Your task to perform on an android device: change alarm snooze length Image 0: 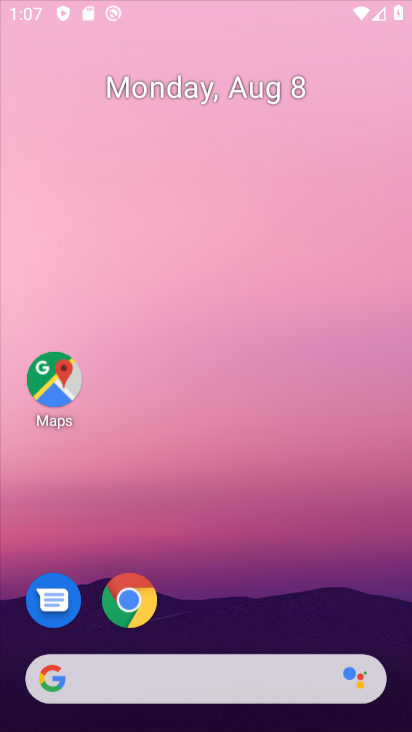
Step 0: press home button
Your task to perform on an android device: change alarm snooze length Image 1: 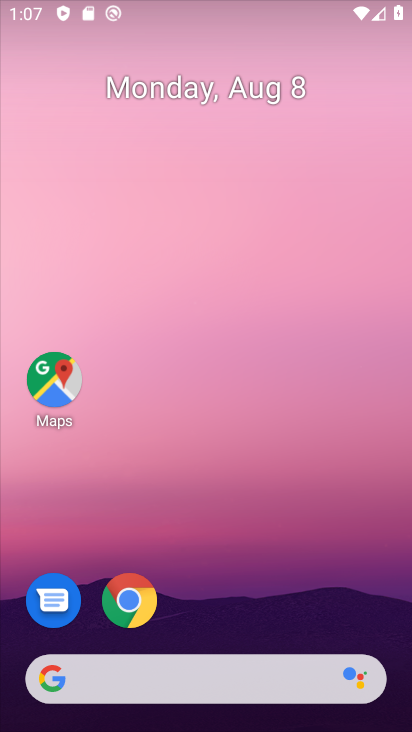
Step 1: drag from (267, 630) to (265, 256)
Your task to perform on an android device: change alarm snooze length Image 2: 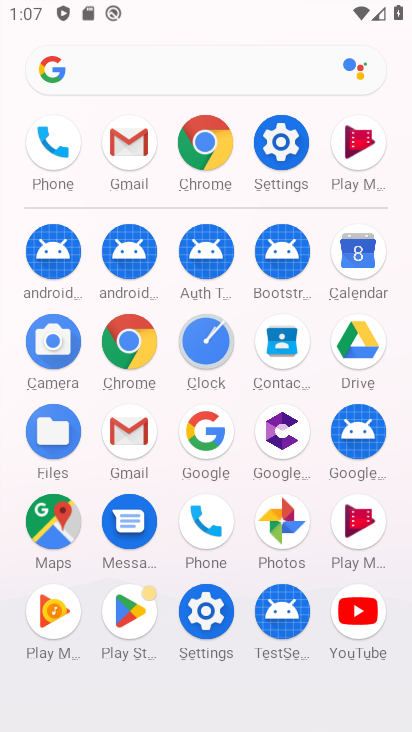
Step 2: click (224, 338)
Your task to perform on an android device: change alarm snooze length Image 3: 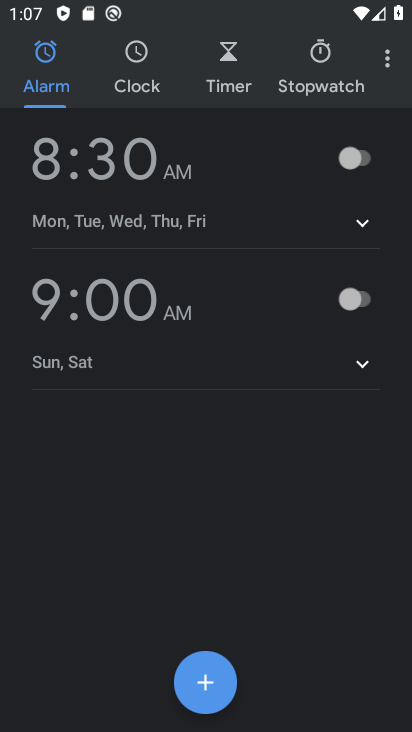
Step 3: click (392, 43)
Your task to perform on an android device: change alarm snooze length Image 4: 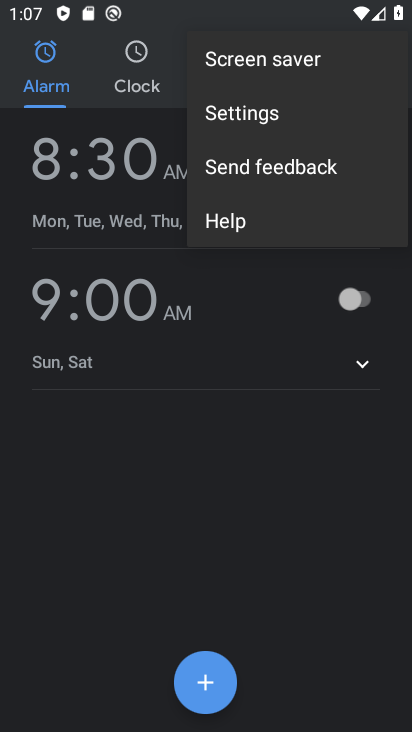
Step 4: click (253, 129)
Your task to perform on an android device: change alarm snooze length Image 5: 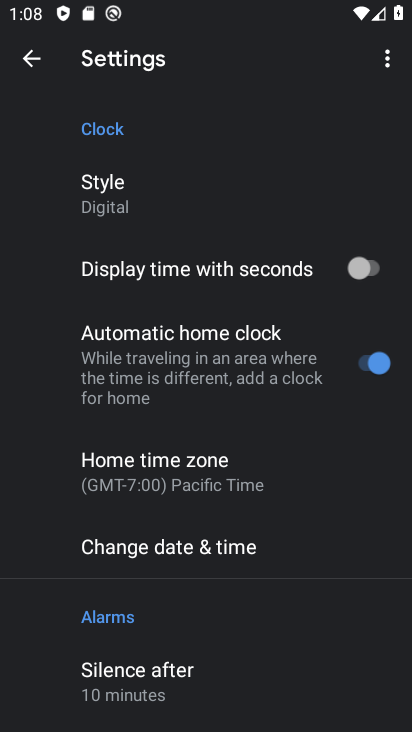
Step 5: drag from (166, 658) to (184, 471)
Your task to perform on an android device: change alarm snooze length Image 6: 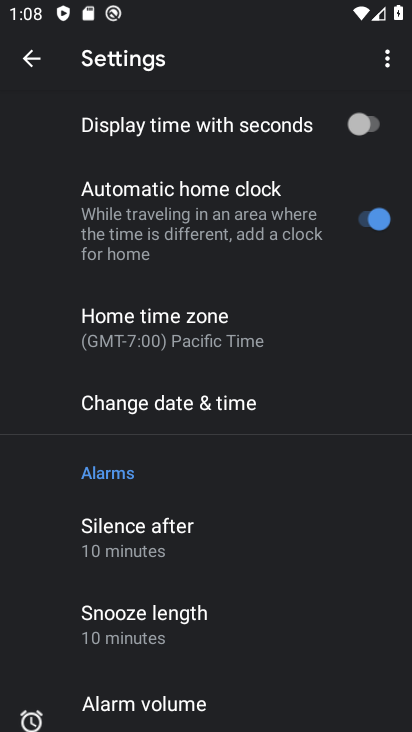
Step 6: click (142, 627)
Your task to perform on an android device: change alarm snooze length Image 7: 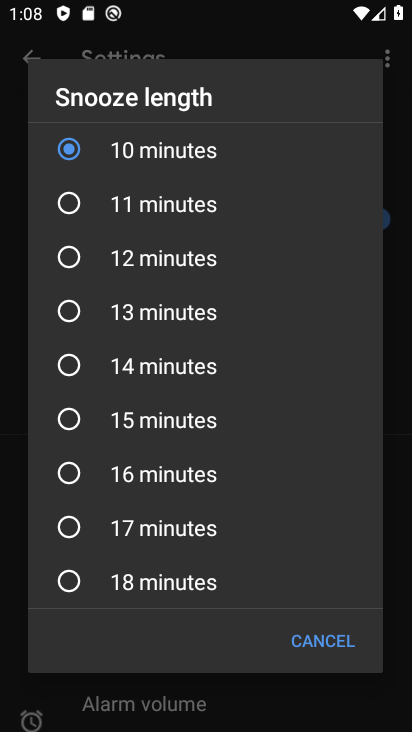
Step 7: click (129, 580)
Your task to perform on an android device: change alarm snooze length Image 8: 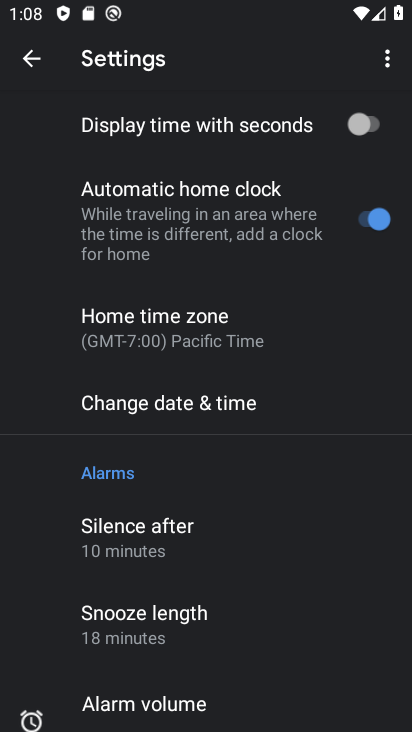
Step 8: task complete